Your task to perform on an android device: turn off notifications settings in the gmail app Image 0: 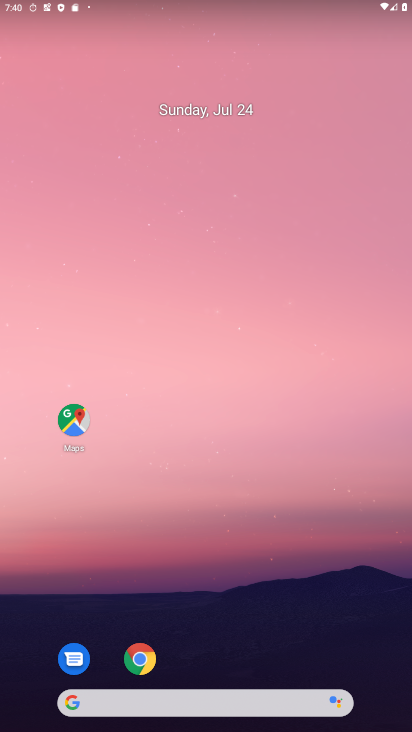
Step 0: drag from (369, 682) to (302, 292)
Your task to perform on an android device: turn off notifications settings in the gmail app Image 1: 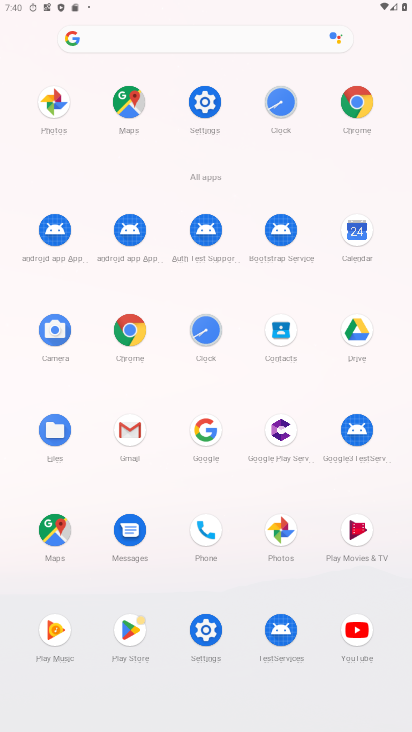
Step 1: click (128, 426)
Your task to perform on an android device: turn off notifications settings in the gmail app Image 2: 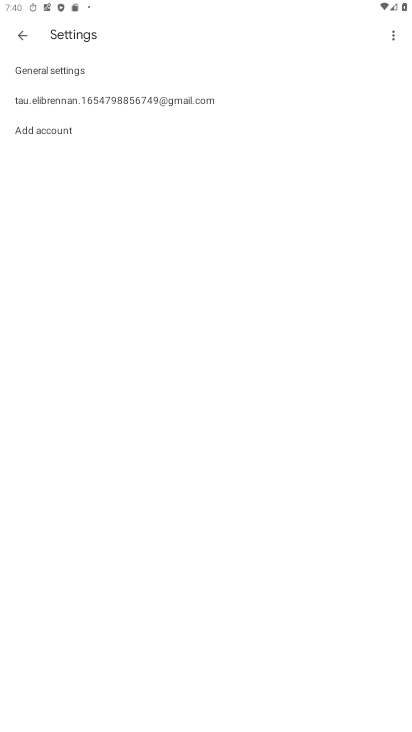
Step 2: click (135, 95)
Your task to perform on an android device: turn off notifications settings in the gmail app Image 3: 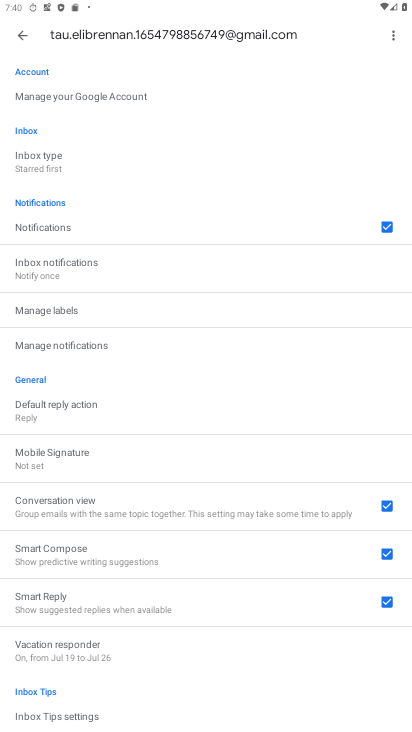
Step 3: click (87, 352)
Your task to perform on an android device: turn off notifications settings in the gmail app Image 4: 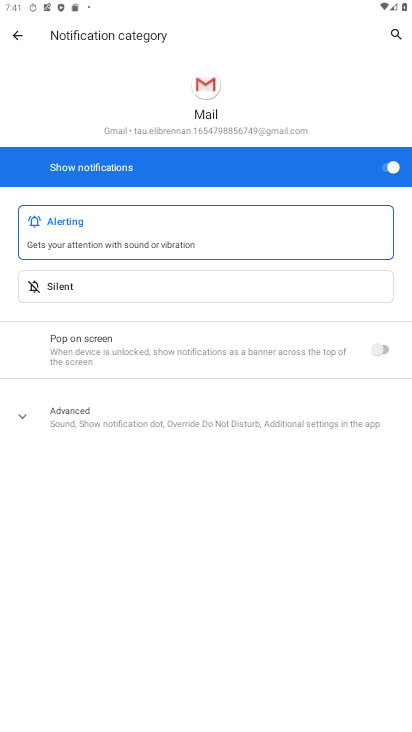
Step 4: task complete